Your task to perform on an android device: stop showing notifications on the lock screen Image 0: 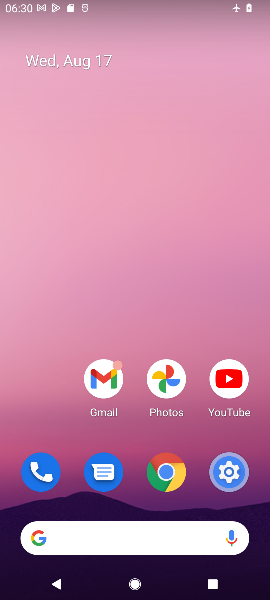
Step 0: drag from (53, 428) to (102, 12)
Your task to perform on an android device: stop showing notifications on the lock screen Image 1: 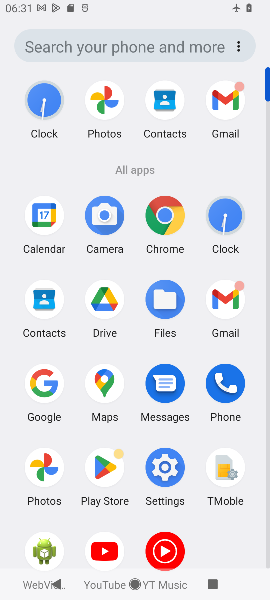
Step 1: click (162, 467)
Your task to perform on an android device: stop showing notifications on the lock screen Image 2: 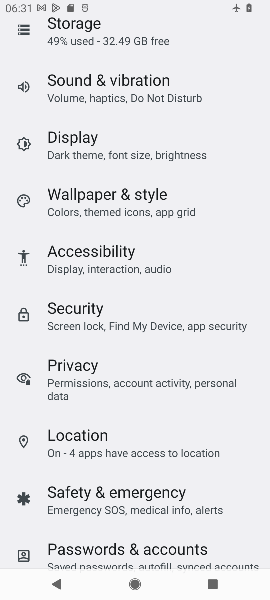
Step 2: drag from (148, 196) to (162, 512)
Your task to perform on an android device: stop showing notifications on the lock screen Image 3: 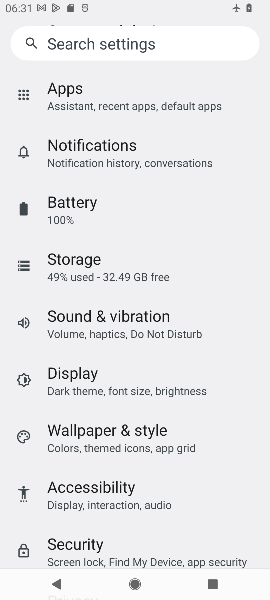
Step 3: click (147, 154)
Your task to perform on an android device: stop showing notifications on the lock screen Image 4: 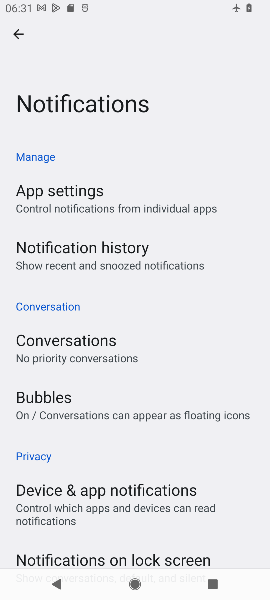
Step 4: drag from (125, 400) to (141, 188)
Your task to perform on an android device: stop showing notifications on the lock screen Image 5: 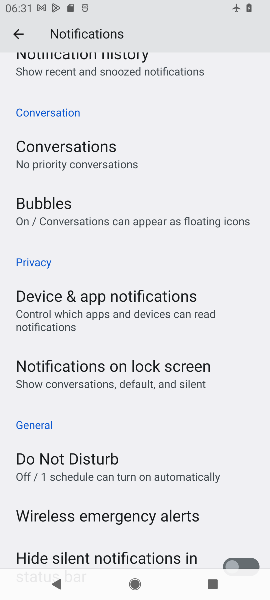
Step 5: click (121, 374)
Your task to perform on an android device: stop showing notifications on the lock screen Image 6: 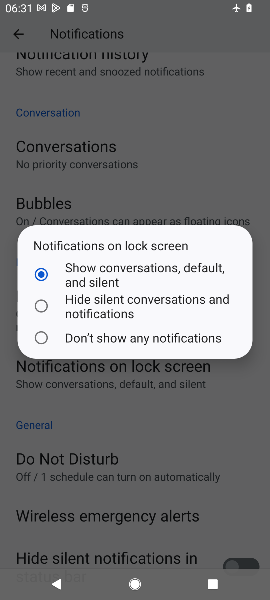
Step 6: click (68, 333)
Your task to perform on an android device: stop showing notifications on the lock screen Image 7: 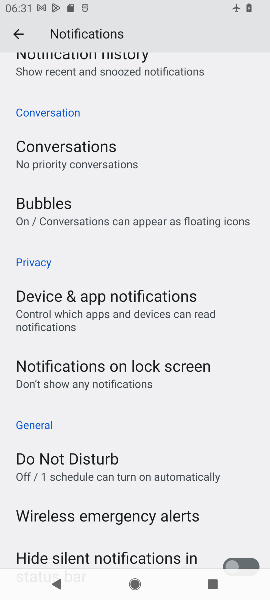
Step 7: task complete